Your task to perform on an android device: change the clock display to show seconds Image 0: 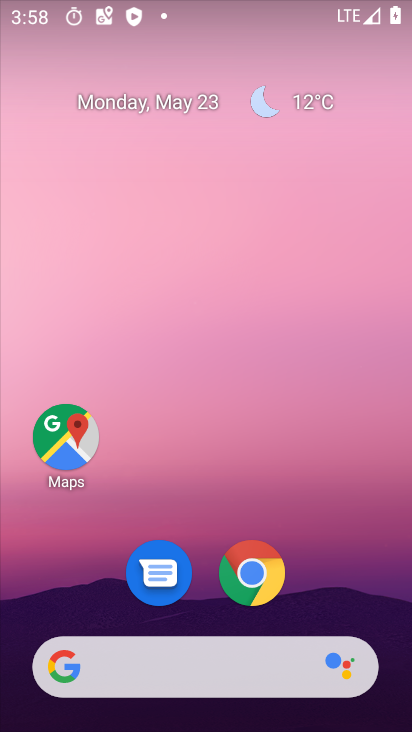
Step 0: press home button
Your task to perform on an android device: change the clock display to show seconds Image 1: 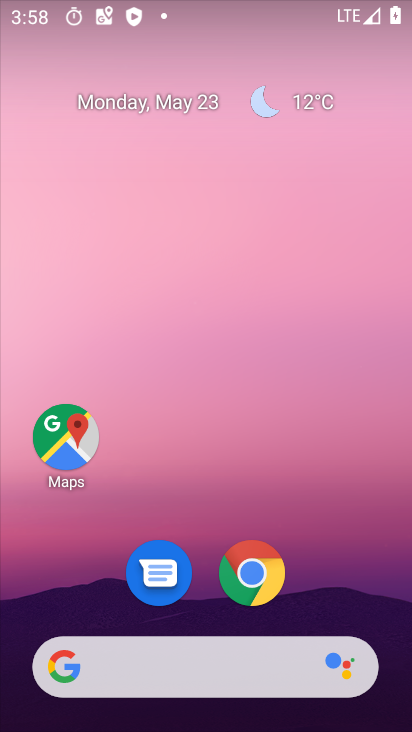
Step 1: drag from (19, 550) to (231, 141)
Your task to perform on an android device: change the clock display to show seconds Image 2: 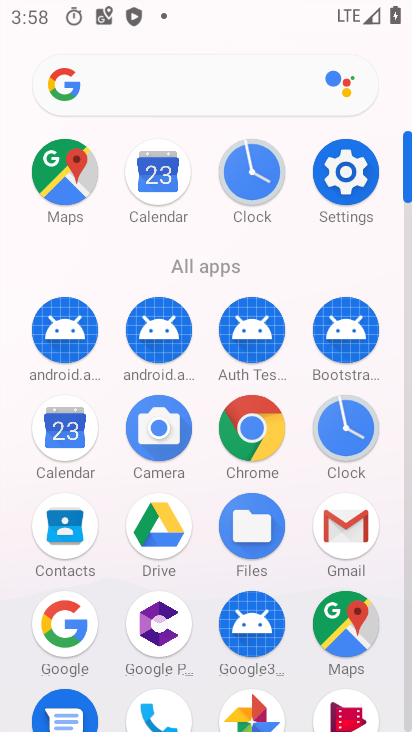
Step 2: click (252, 170)
Your task to perform on an android device: change the clock display to show seconds Image 3: 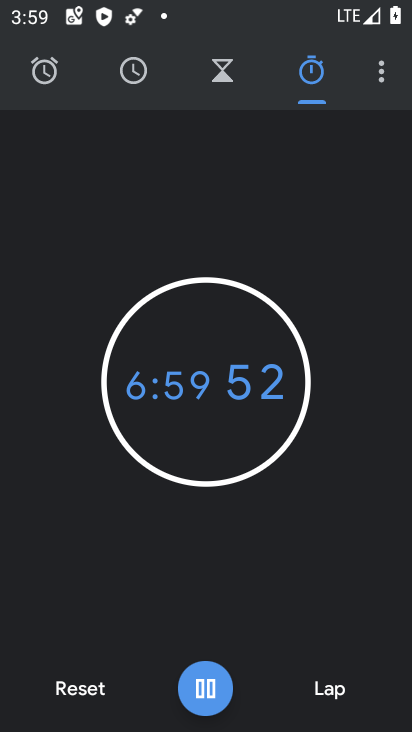
Step 3: click (384, 72)
Your task to perform on an android device: change the clock display to show seconds Image 4: 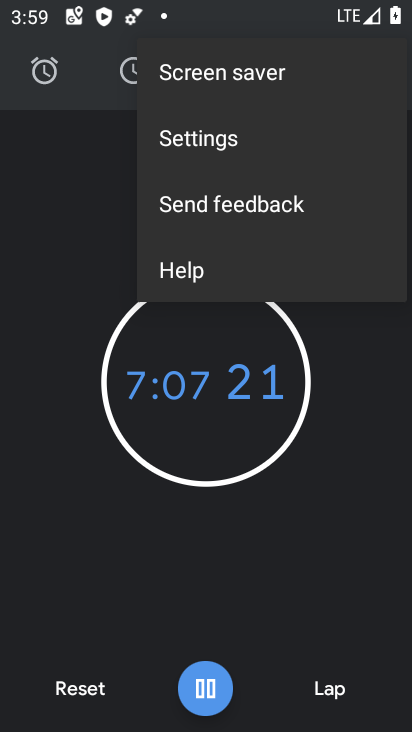
Step 4: click (220, 138)
Your task to perform on an android device: change the clock display to show seconds Image 5: 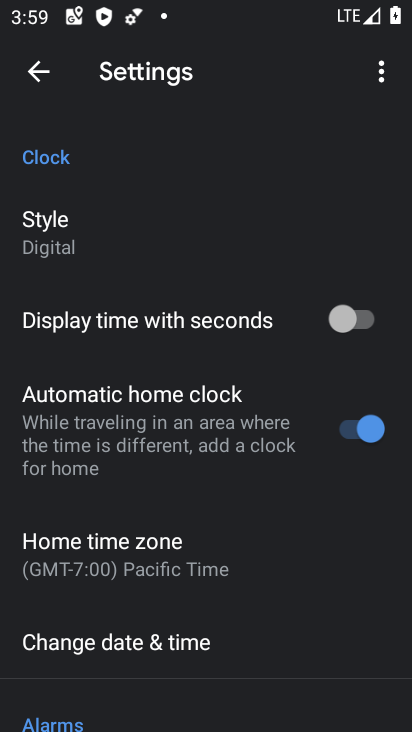
Step 5: click (329, 322)
Your task to perform on an android device: change the clock display to show seconds Image 6: 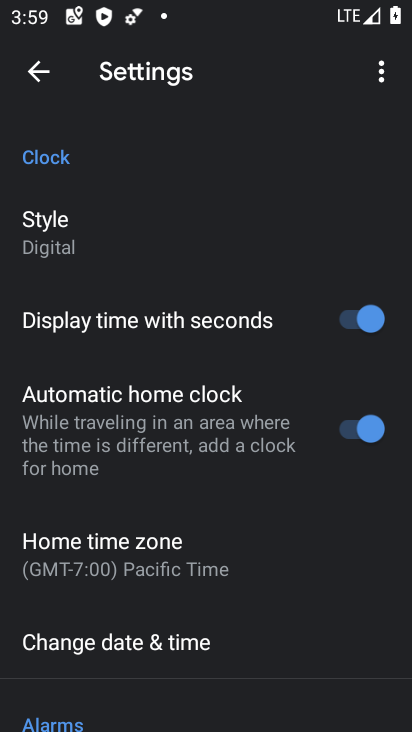
Step 6: task complete